Your task to perform on an android device: turn vacation reply on in the gmail app Image 0: 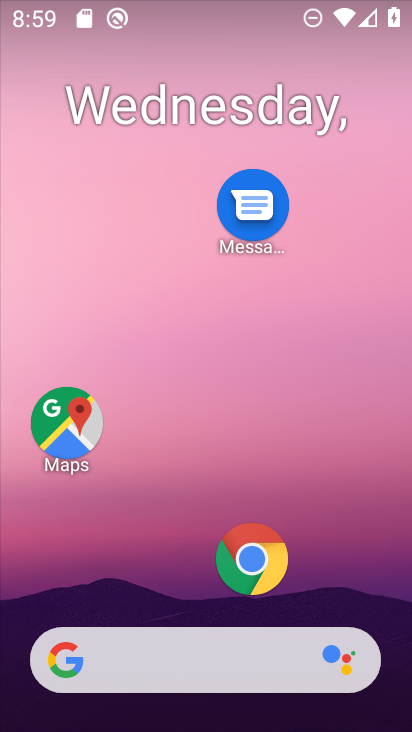
Step 0: drag from (132, 600) to (86, 0)
Your task to perform on an android device: turn vacation reply on in the gmail app Image 1: 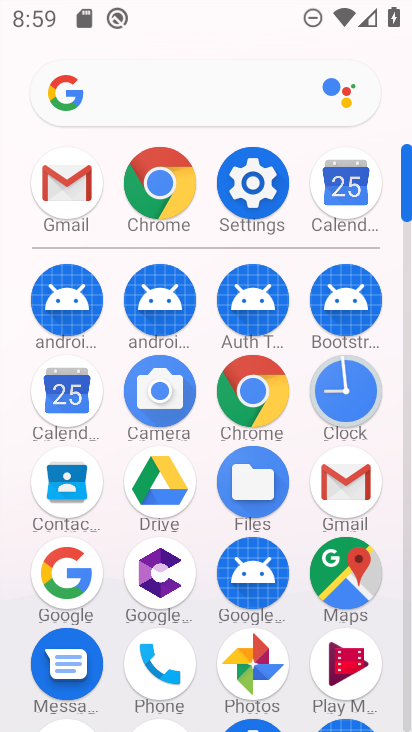
Step 1: click (367, 496)
Your task to perform on an android device: turn vacation reply on in the gmail app Image 2: 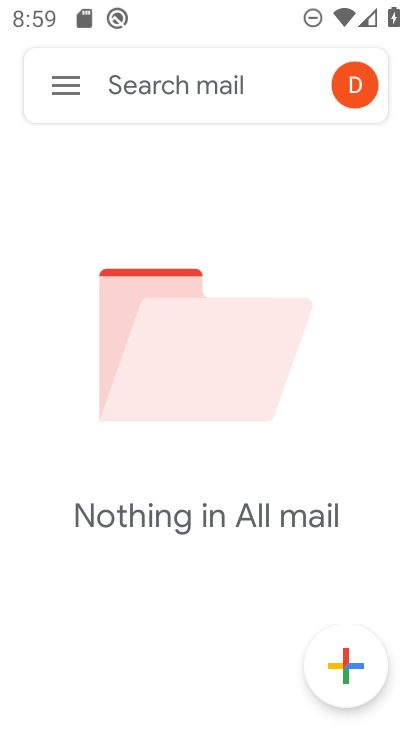
Step 2: click (63, 96)
Your task to perform on an android device: turn vacation reply on in the gmail app Image 3: 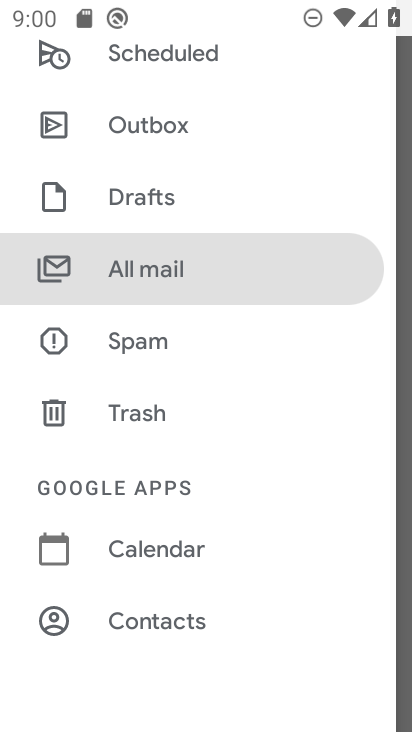
Step 3: drag from (155, 522) to (174, 2)
Your task to perform on an android device: turn vacation reply on in the gmail app Image 4: 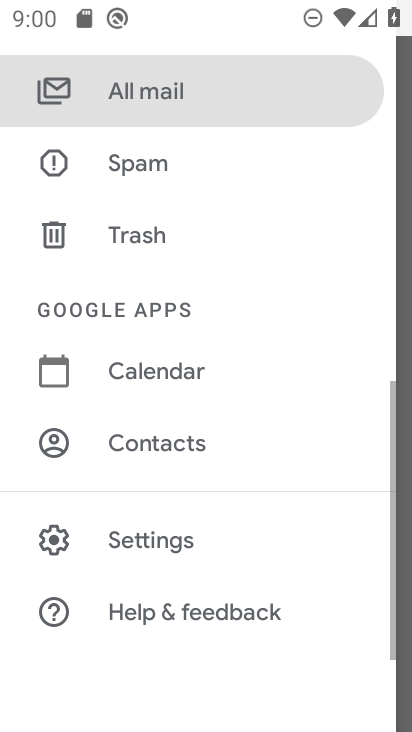
Step 4: click (173, 547)
Your task to perform on an android device: turn vacation reply on in the gmail app Image 5: 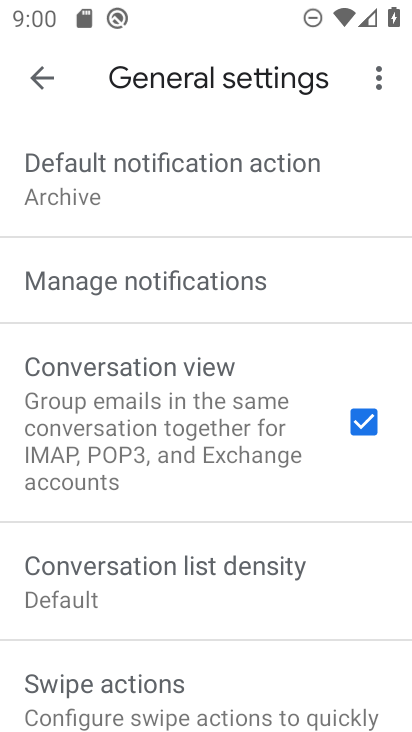
Step 5: click (71, 117)
Your task to perform on an android device: turn vacation reply on in the gmail app Image 6: 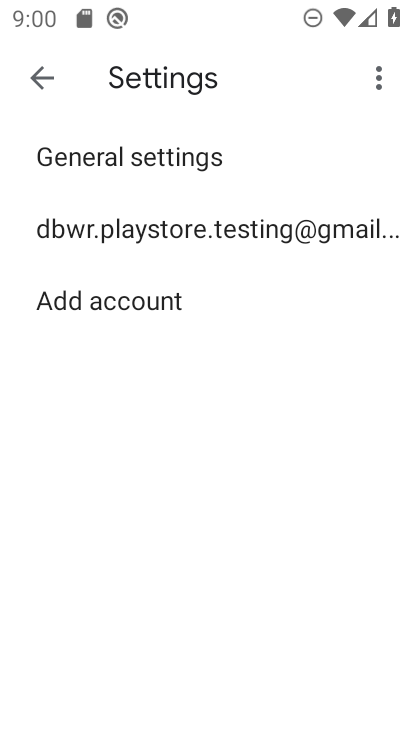
Step 6: click (117, 226)
Your task to perform on an android device: turn vacation reply on in the gmail app Image 7: 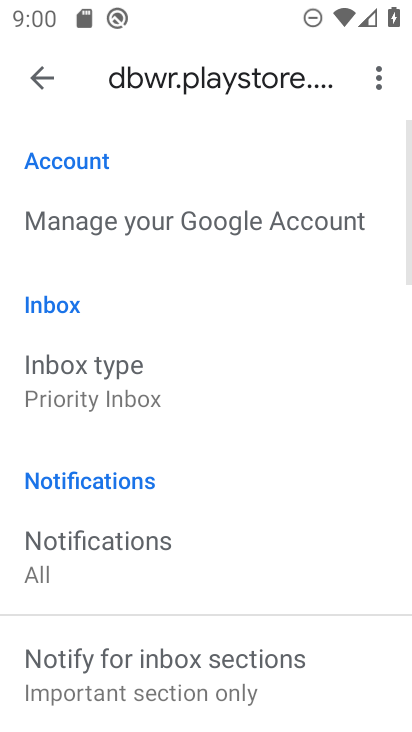
Step 7: drag from (244, 627) to (165, 148)
Your task to perform on an android device: turn vacation reply on in the gmail app Image 8: 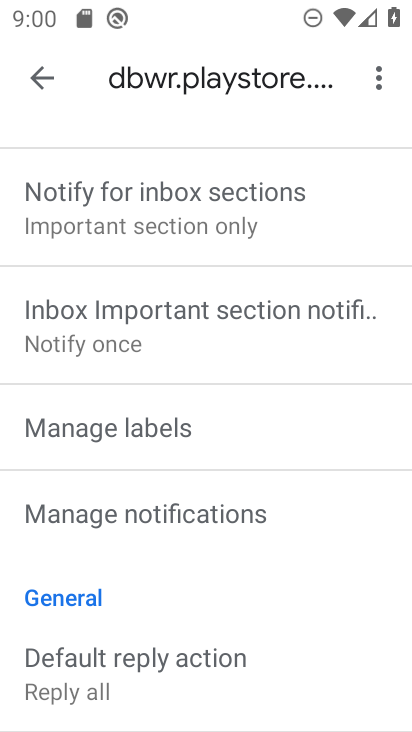
Step 8: drag from (203, 490) to (184, 206)
Your task to perform on an android device: turn vacation reply on in the gmail app Image 9: 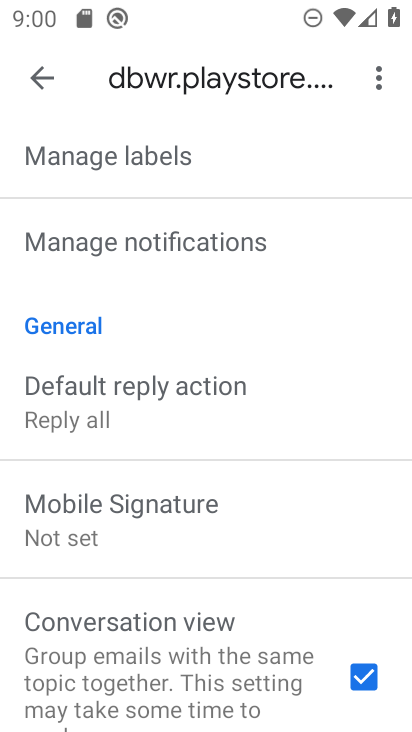
Step 9: drag from (190, 510) to (122, 77)
Your task to perform on an android device: turn vacation reply on in the gmail app Image 10: 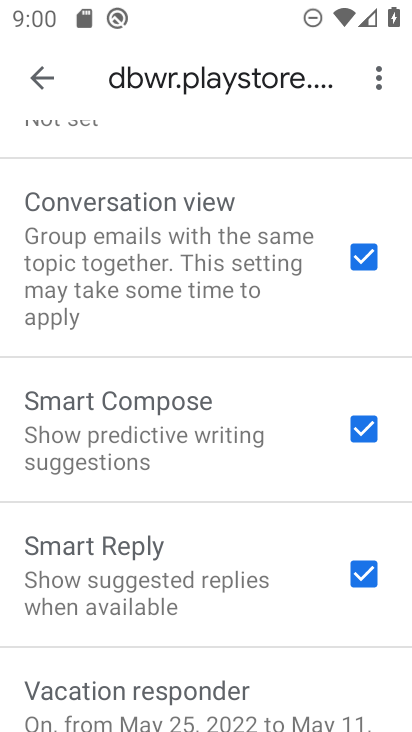
Step 10: drag from (232, 598) to (136, 11)
Your task to perform on an android device: turn vacation reply on in the gmail app Image 11: 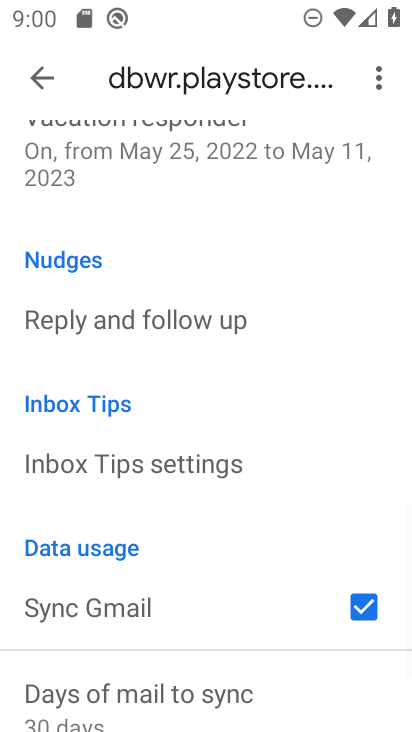
Step 11: drag from (200, 613) to (167, 143)
Your task to perform on an android device: turn vacation reply on in the gmail app Image 12: 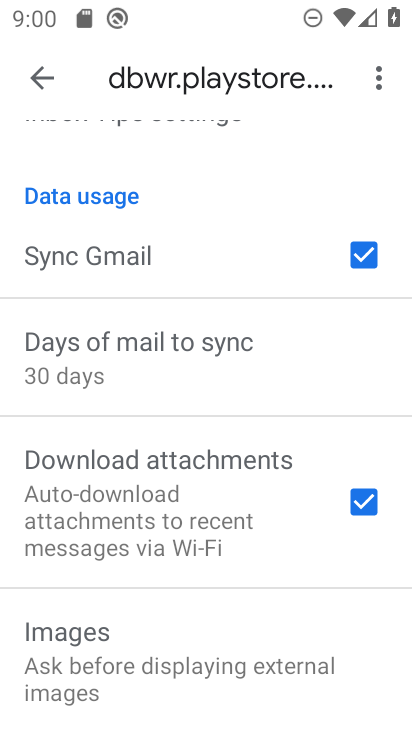
Step 12: drag from (207, 619) to (178, 124)
Your task to perform on an android device: turn vacation reply on in the gmail app Image 13: 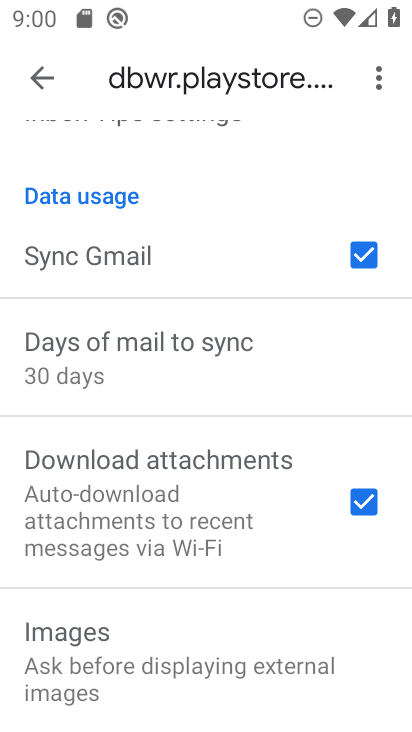
Step 13: drag from (206, 569) to (181, 226)
Your task to perform on an android device: turn vacation reply on in the gmail app Image 14: 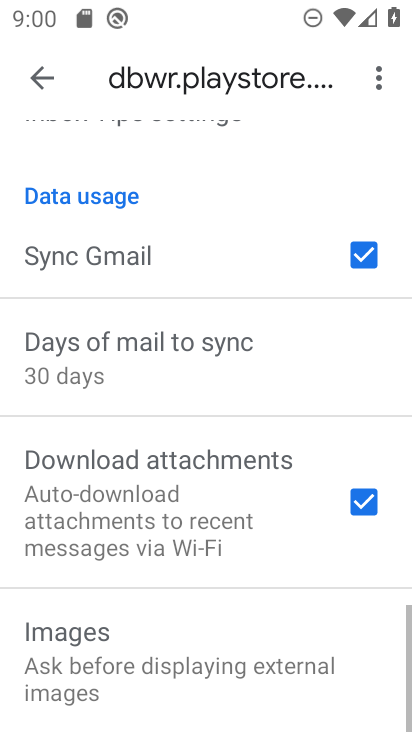
Step 14: drag from (187, 456) to (220, 724)
Your task to perform on an android device: turn vacation reply on in the gmail app Image 15: 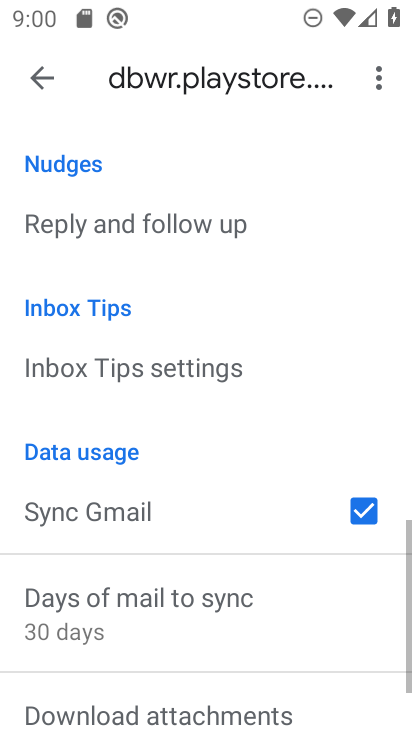
Step 15: drag from (241, 357) to (257, 574)
Your task to perform on an android device: turn vacation reply on in the gmail app Image 16: 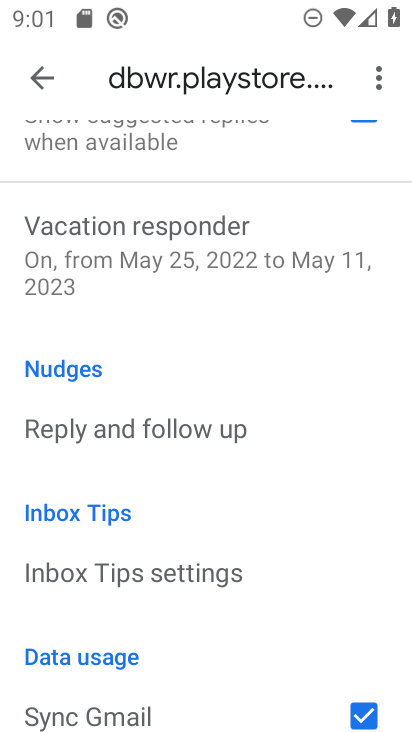
Step 16: click (248, 258)
Your task to perform on an android device: turn vacation reply on in the gmail app Image 17: 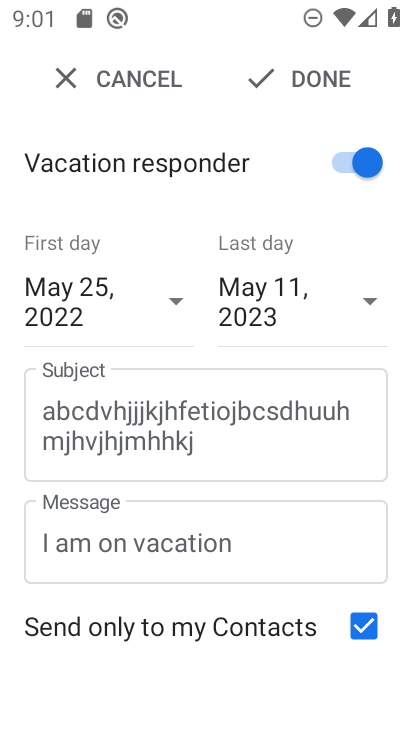
Step 17: task complete